Your task to perform on an android device: turn notification dots off Image 0: 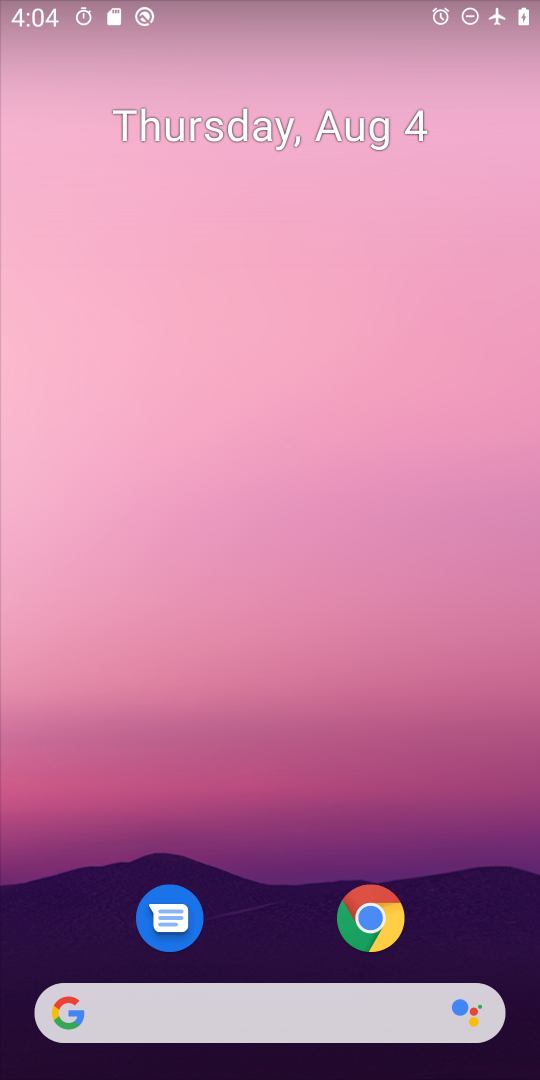
Step 0: drag from (255, 912) to (253, 267)
Your task to perform on an android device: turn notification dots off Image 1: 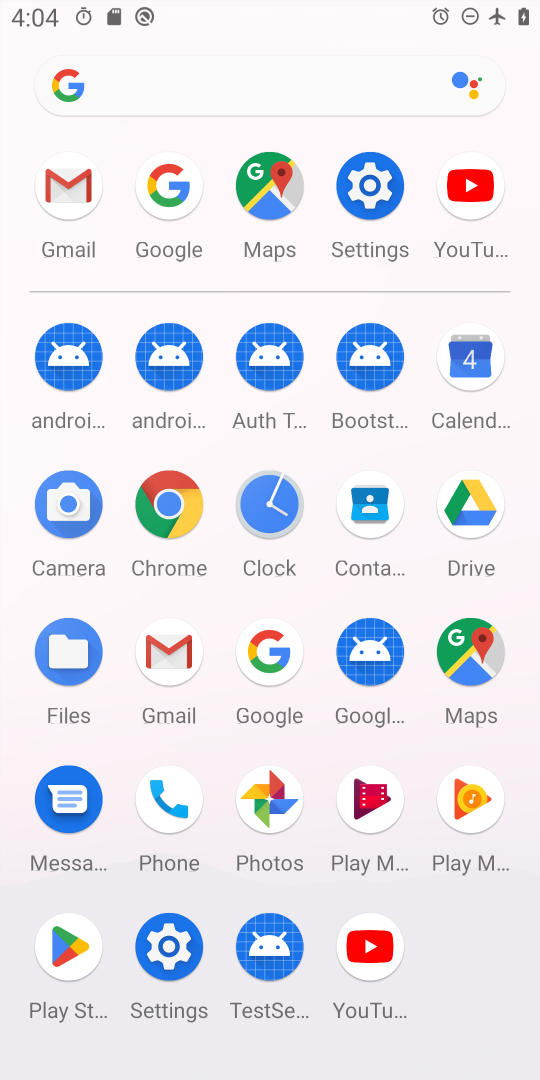
Step 1: click (374, 173)
Your task to perform on an android device: turn notification dots off Image 2: 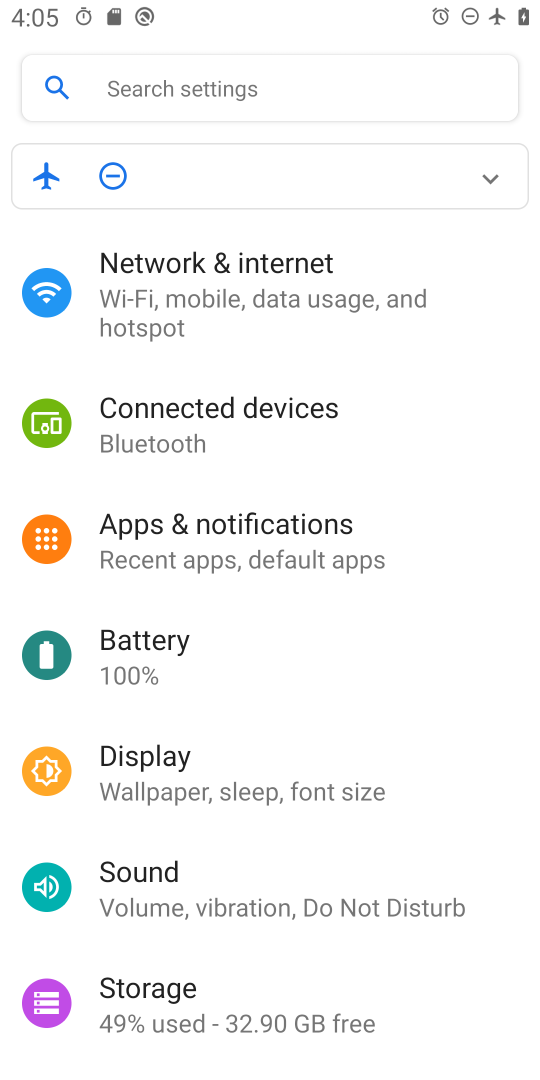
Step 2: click (310, 502)
Your task to perform on an android device: turn notification dots off Image 3: 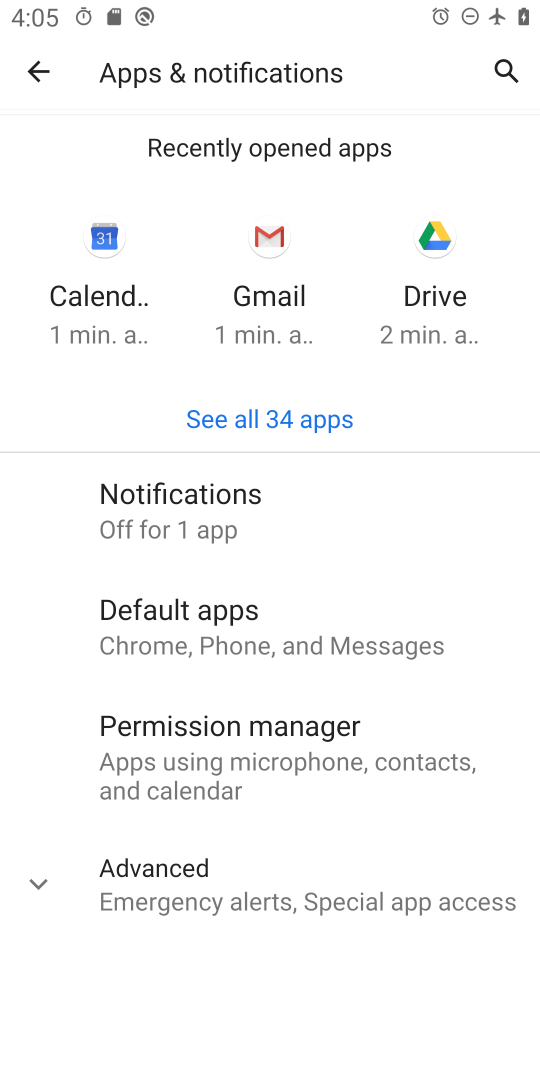
Step 3: click (279, 518)
Your task to perform on an android device: turn notification dots off Image 4: 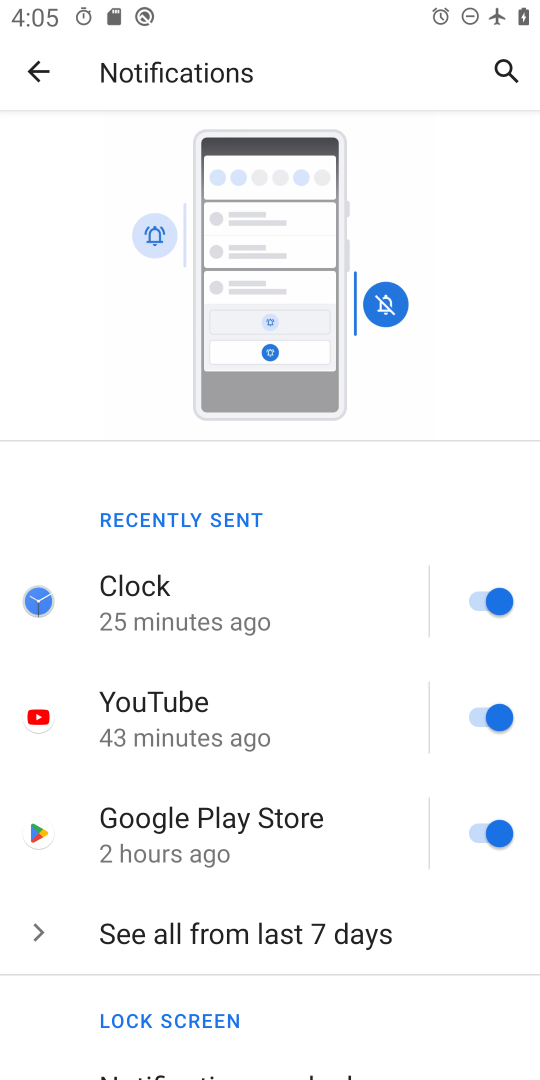
Step 4: drag from (303, 826) to (361, 368)
Your task to perform on an android device: turn notification dots off Image 5: 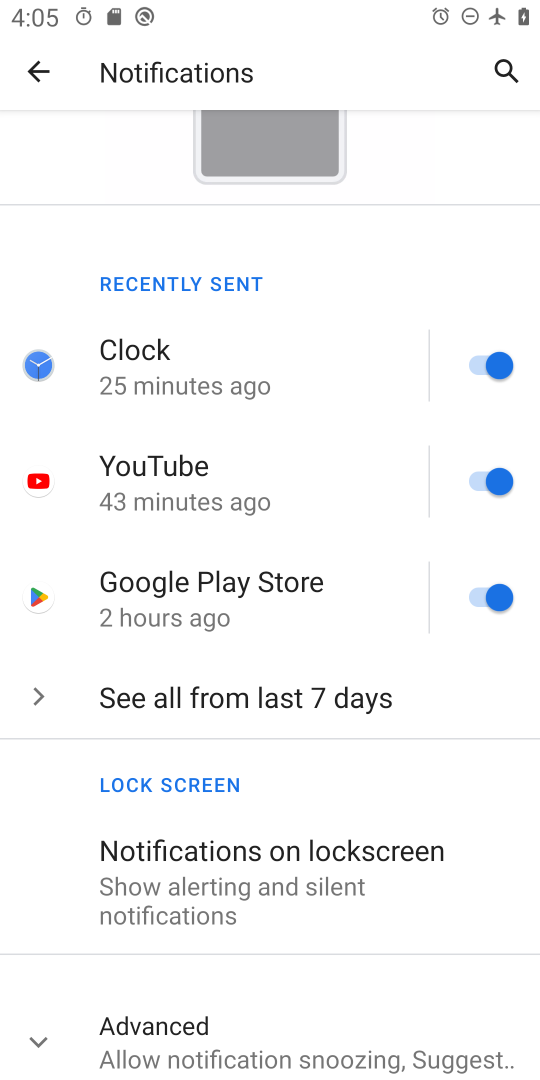
Step 5: drag from (340, 898) to (369, 480)
Your task to perform on an android device: turn notification dots off Image 6: 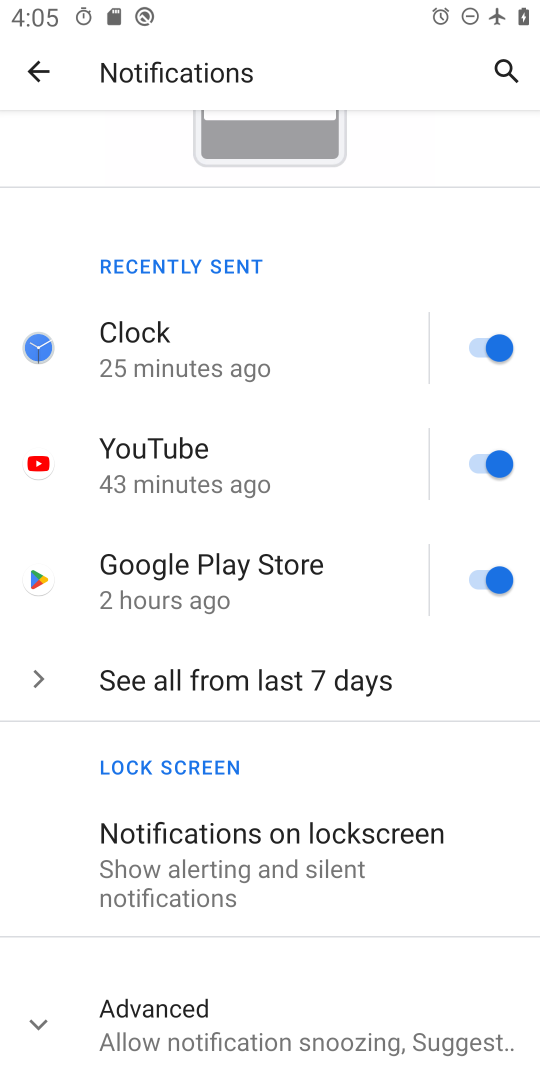
Step 6: click (291, 997)
Your task to perform on an android device: turn notification dots off Image 7: 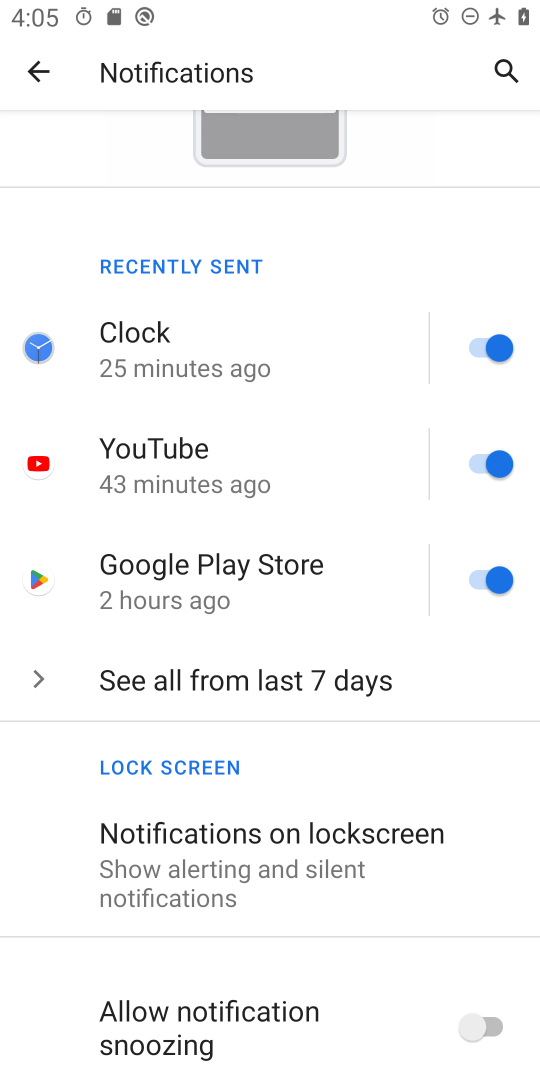
Step 7: task complete